Your task to perform on an android device: Open Google Chrome Image 0: 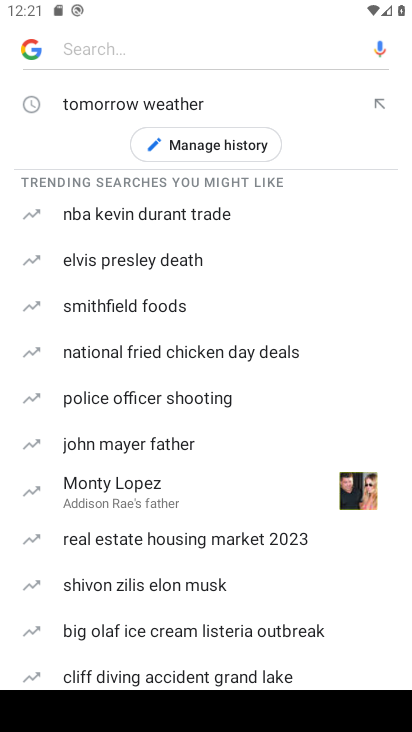
Step 0: press home button
Your task to perform on an android device: Open Google Chrome Image 1: 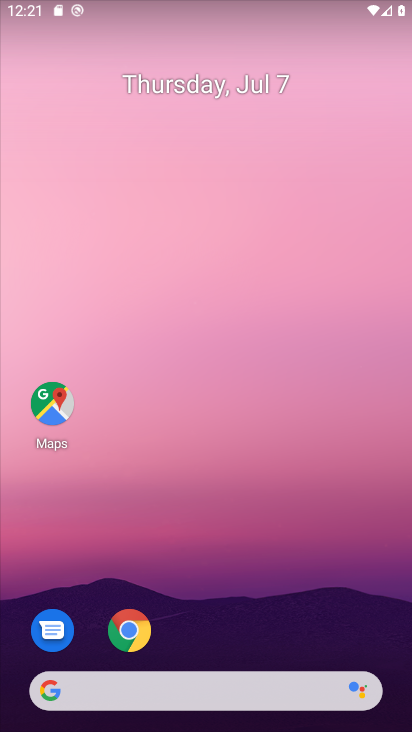
Step 1: click (148, 636)
Your task to perform on an android device: Open Google Chrome Image 2: 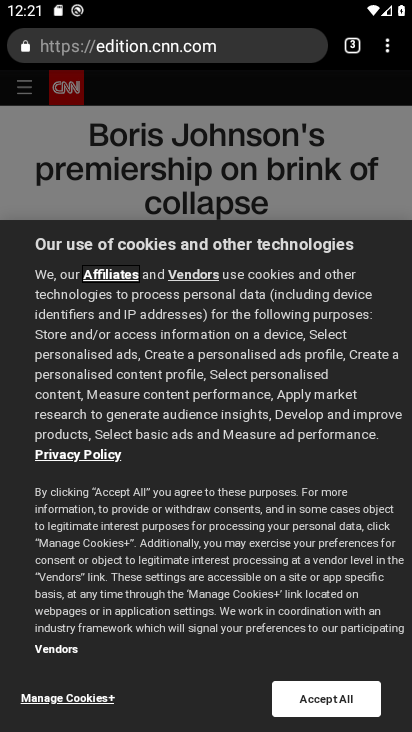
Step 2: click (389, 43)
Your task to perform on an android device: Open Google Chrome Image 3: 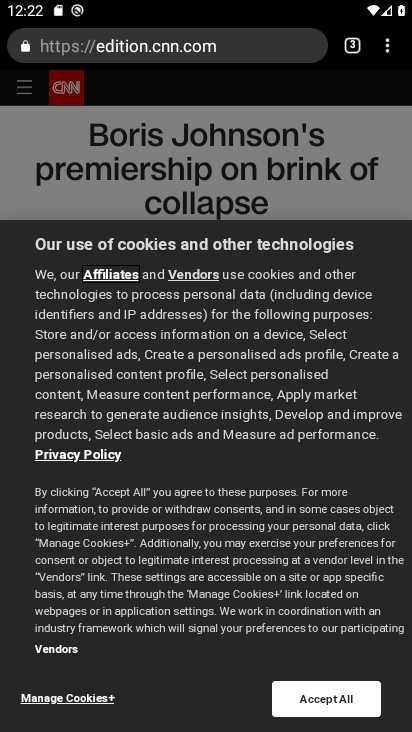
Step 3: click (380, 42)
Your task to perform on an android device: Open Google Chrome Image 4: 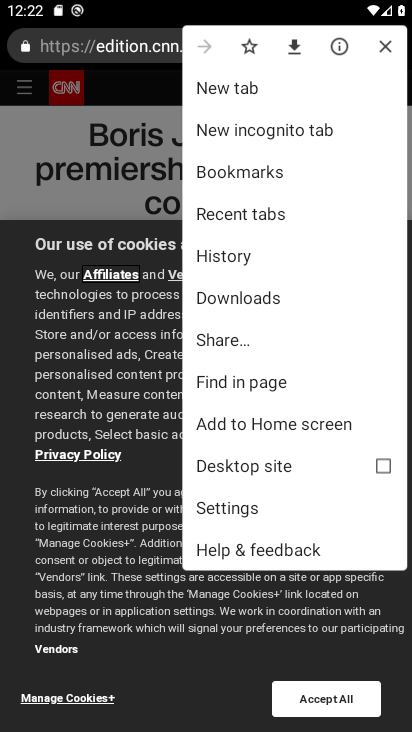
Step 4: click (235, 97)
Your task to perform on an android device: Open Google Chrome Image 5: 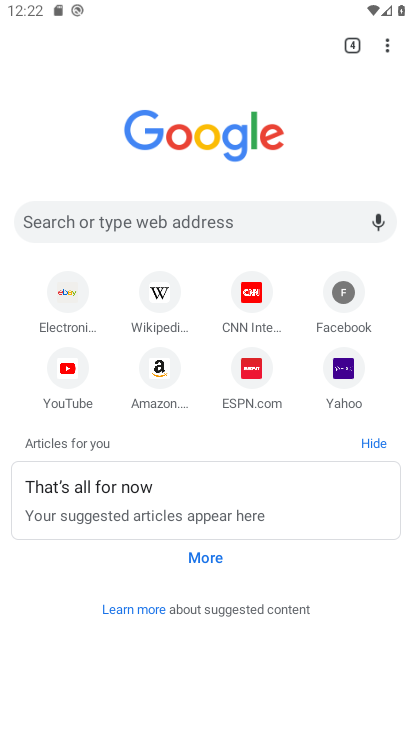
Step 5: task complete